Your task to perform on an android device: open wifi settings Image 0: 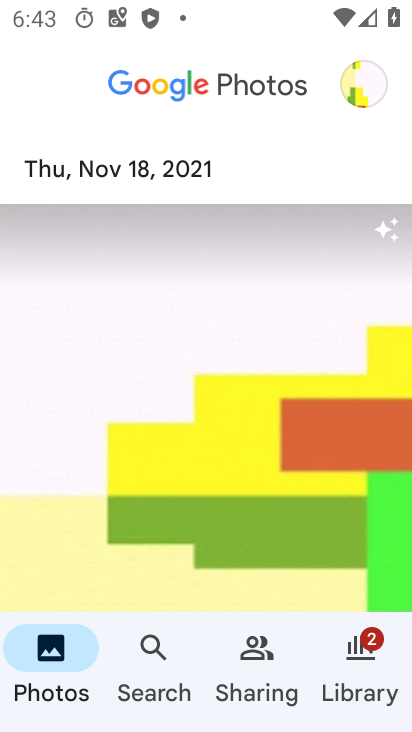
Step 0: press home button
Your task to perform on an android device: open wifi settings Image 1: 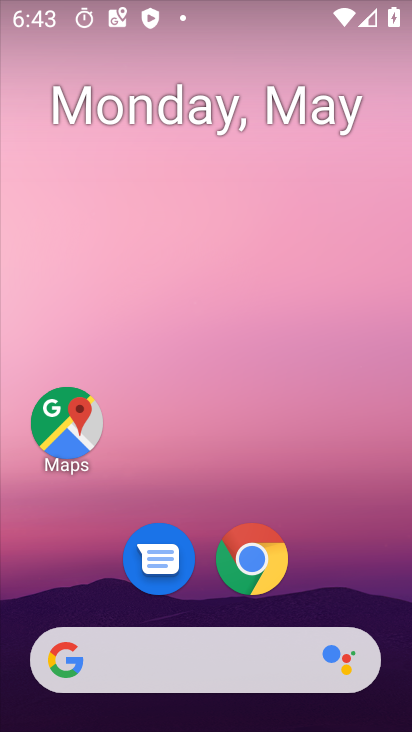
Step 1: drag from (398, 615) to (191, 28)
Your task to perform on an android device: open wifi settings Image 2: 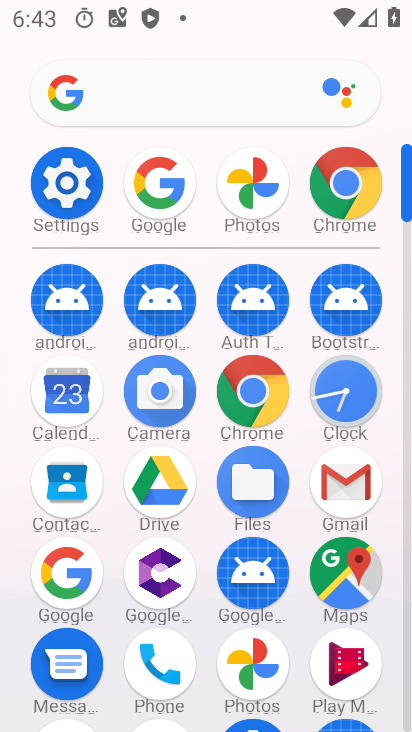
Step 2: click (66, 188)
Your task to perform on an android device: open wifi settings Image 3: 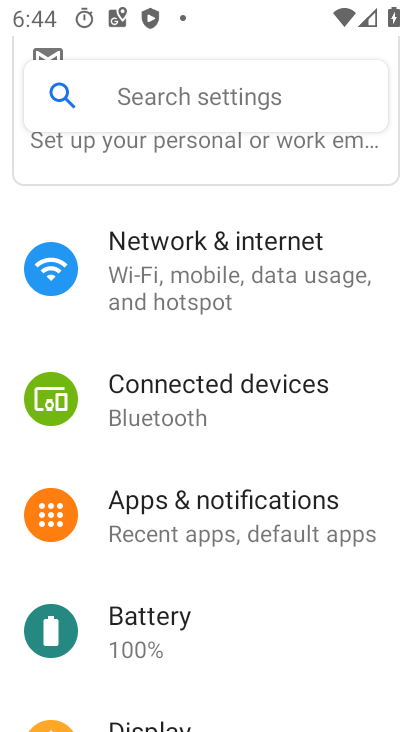
Step 3: click (166, 288)
Your task to perform on an android device: open wifi settings Image 4: 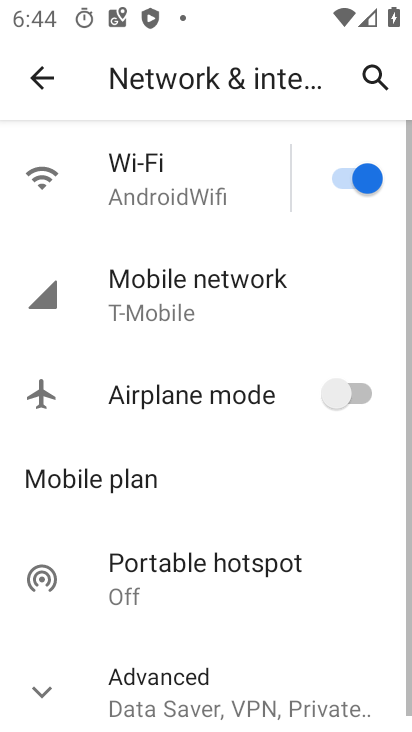
Step 4: click (144, 206)
Your task to perform on an android device: open wifi settings Image 5: 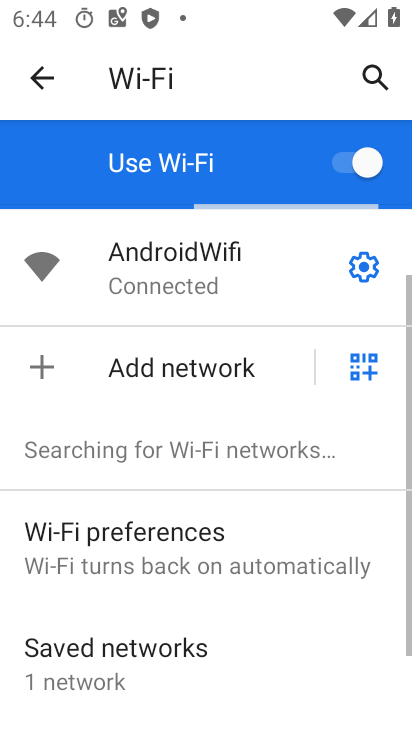
Step 5: task complete